Your task to perform on an android device: Open the calendar and show me this week's events Image 0: 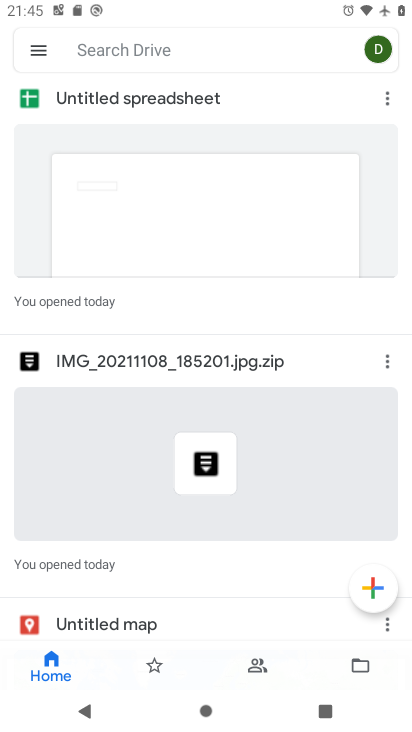
Step 0: press home button
Your task to perform on an android device: Open the calendar and show me this week's events Image 1: 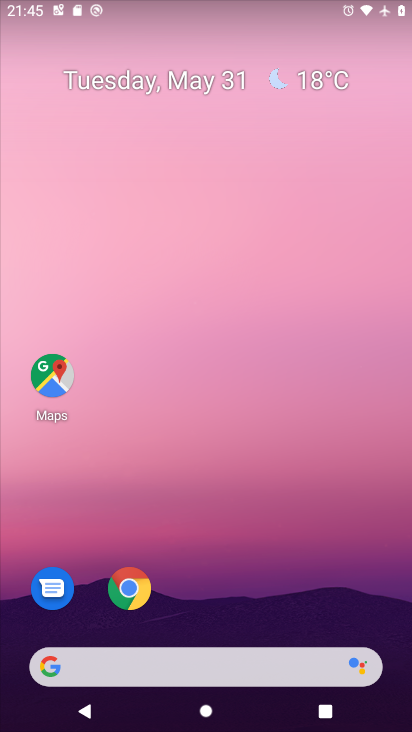
Step 1: drag from (159, 664) to (312, 220)
Your task to perform on an android device: Open the calendar and show me this week's events Image 2: 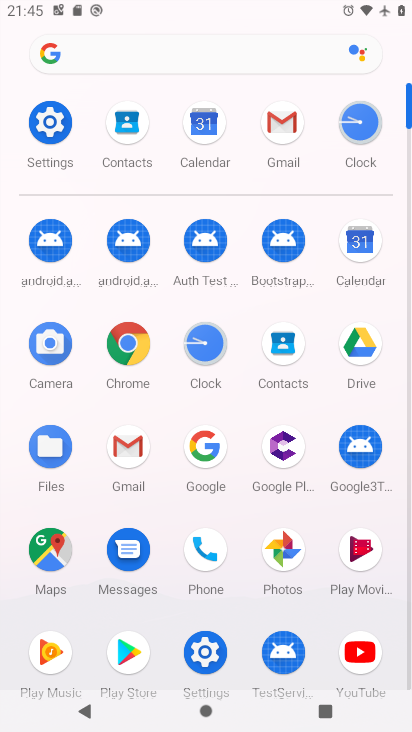
Step 2: click (362, 253)
Your task to perform on an android device: Open the calendar and show me this week's events Image 3: 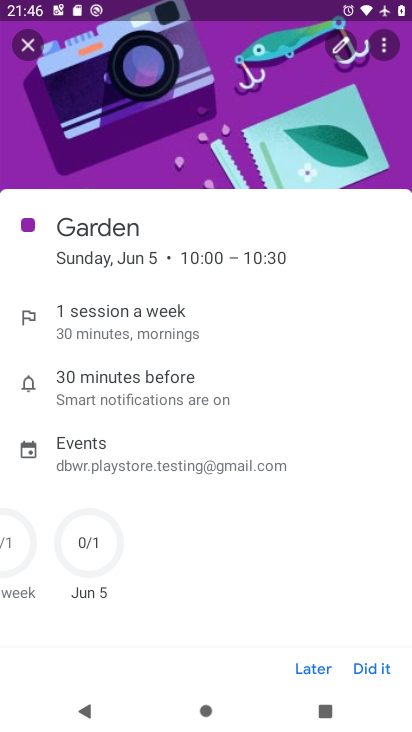
Step 3: click (35, 40)
Your task to perform on an android device: Open the calendar and show me this week's events Image 4: 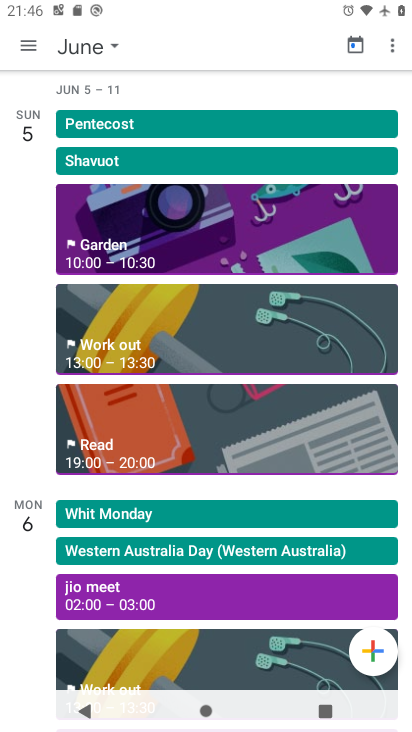
Step 4: click (90, 51)
Your task to perform on an android device: Open the calendar and show me this week's events Image 5: 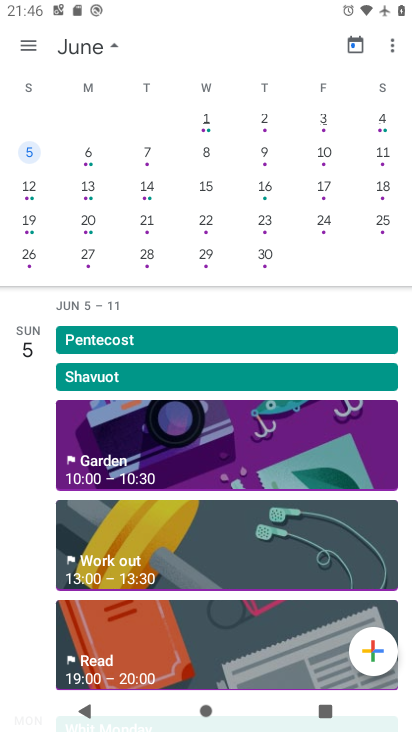
Step 5: click (206, 119)
Your task to perform on an android device: Open the calendar and show me this week's events Image 6: 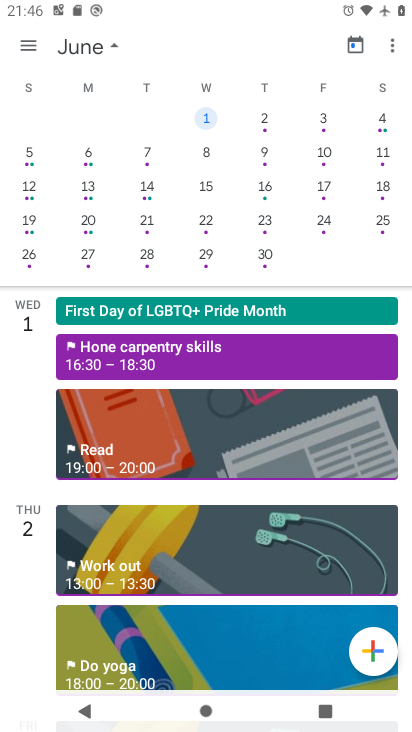
Step 6: click (23, 48)
Your task to perform on an android device: Open the calendar and show me this week's events Image 7: 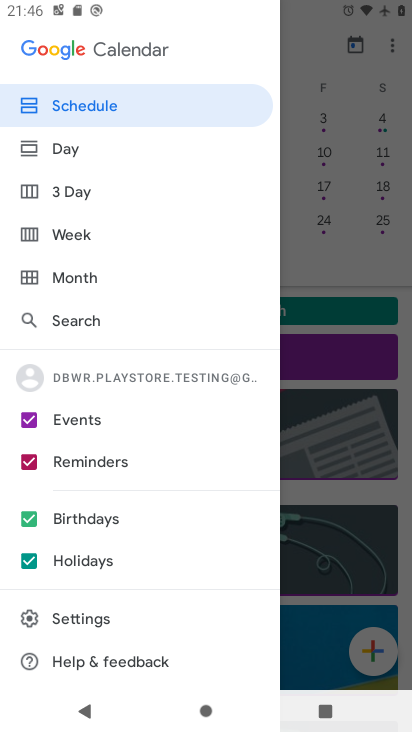
Step 7: click (60, 237)
Your task to perform on an android device: Open the calendar and show me this week's events Image 8: 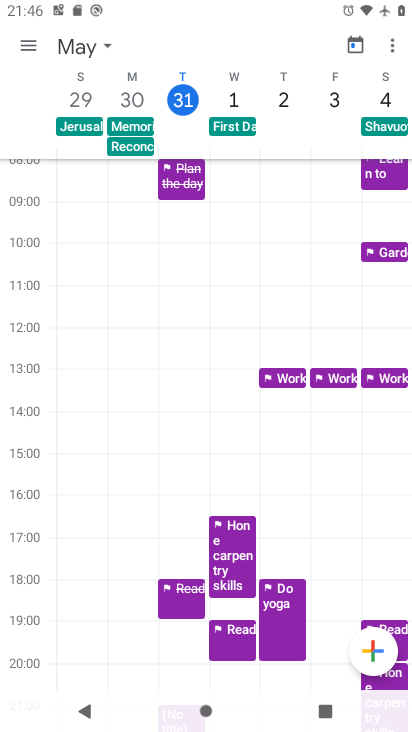
Step 8: click (30, 51)
Your task to perform on an android device: Open the calendar and show me this week's events Image 9: 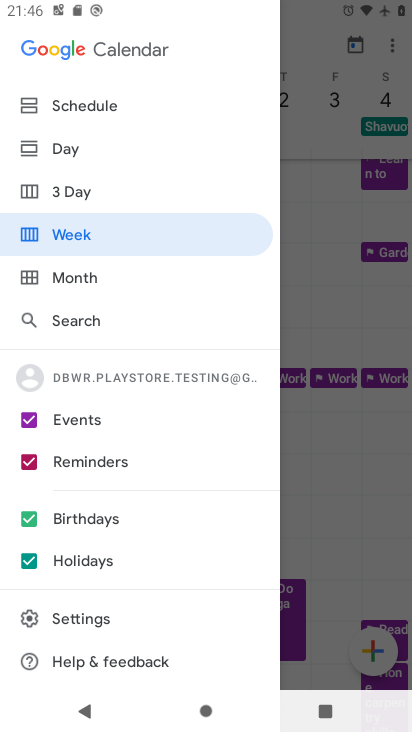
Step 9: click (101, 104)
Your task to perform on an android device: Open the calendar and show me this week's events Image 10: 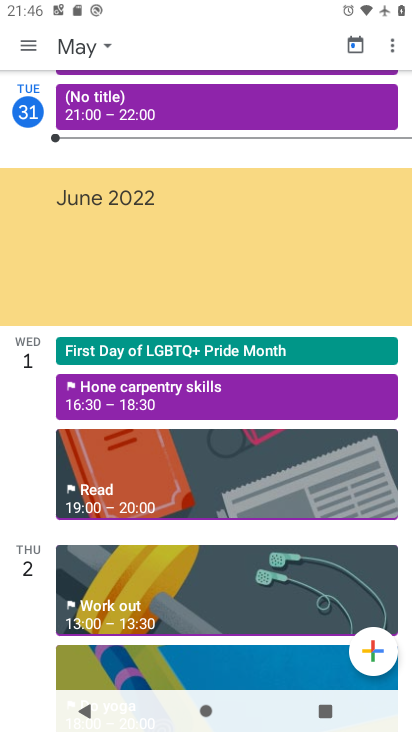
Step 10: click (193, 402)
Your task to perform on an android device: Open the calendar and show me this week's events Image 11: 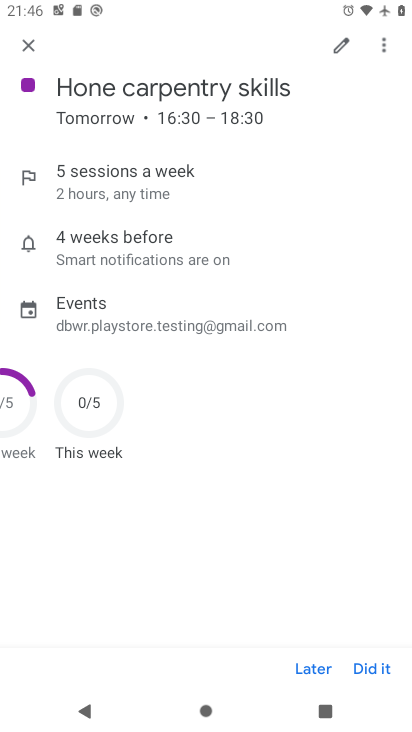
Step 11: task complete